Your task to perform on an android device: toggle priority inbox in the gmail app Image 0: 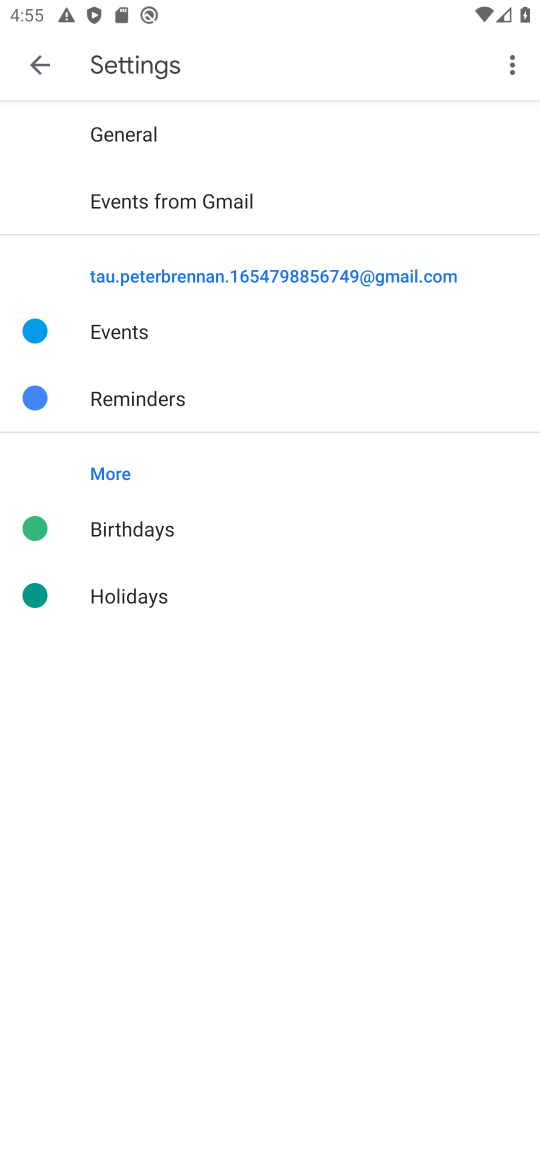
Step 0: press home button
Your task to perform on an android device: toggle priority inbox in the gmail app Image 1: 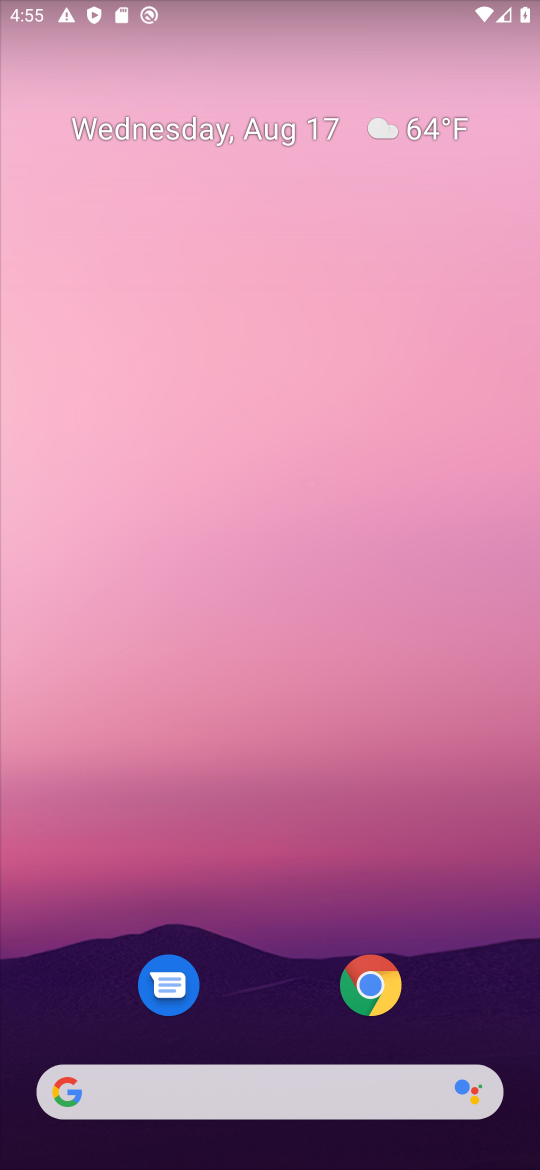
Step 1: drag from (243, 1114) to (272, 251)
Your task to perform on an android device: toggle priority inbox in the gmail app Image 2: 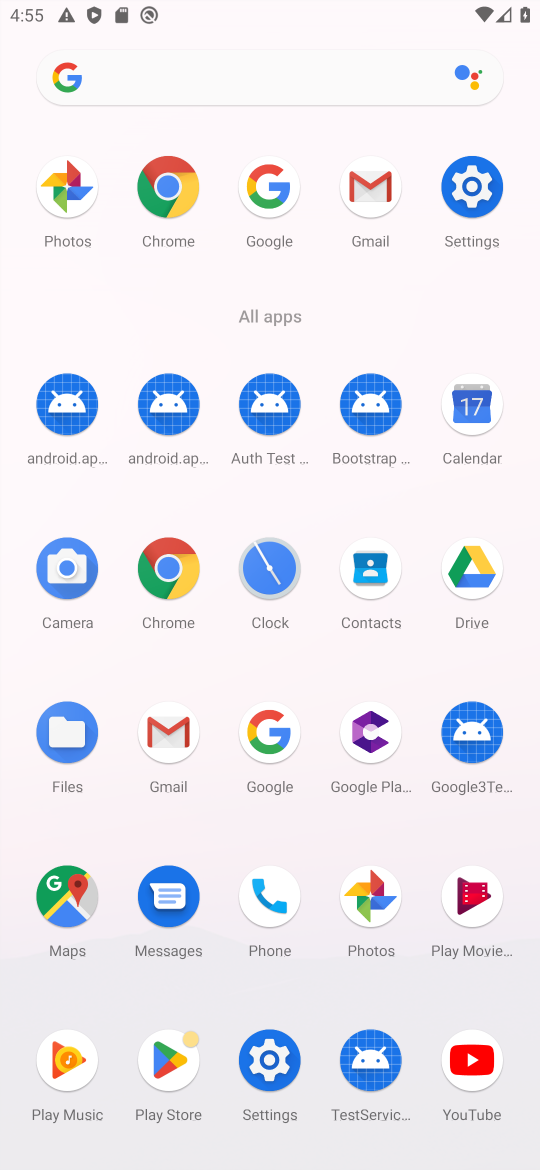
Step 2: click (363, 186)
Your task to perform on an android device: toggle priority inbox in the gmail app Image 3: 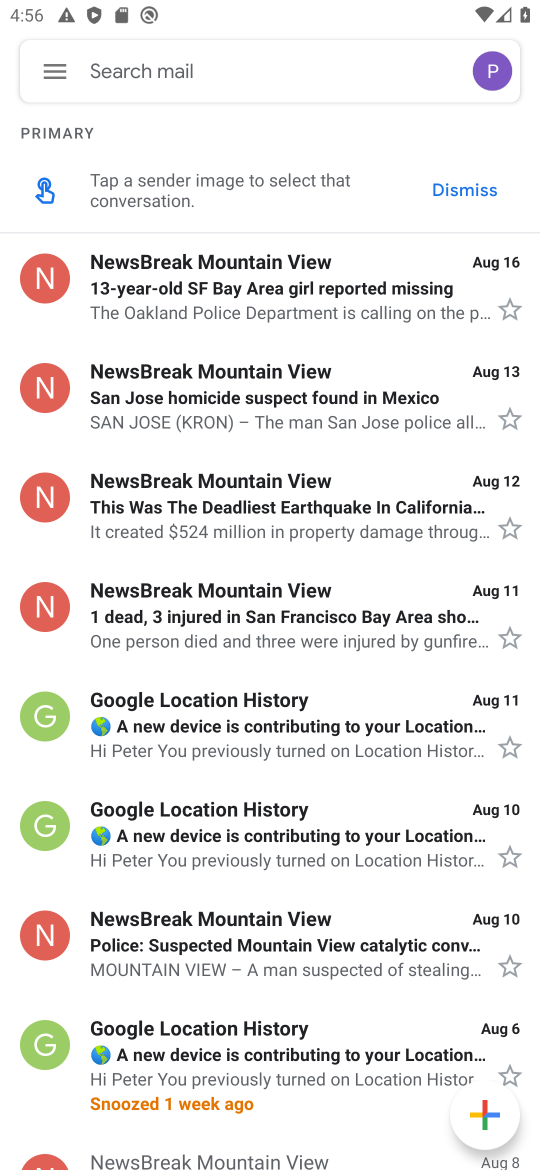
Step 3: click (54, 72)
Your task to perform on an android device: toggle priority inbox in the gmail app Image 4: 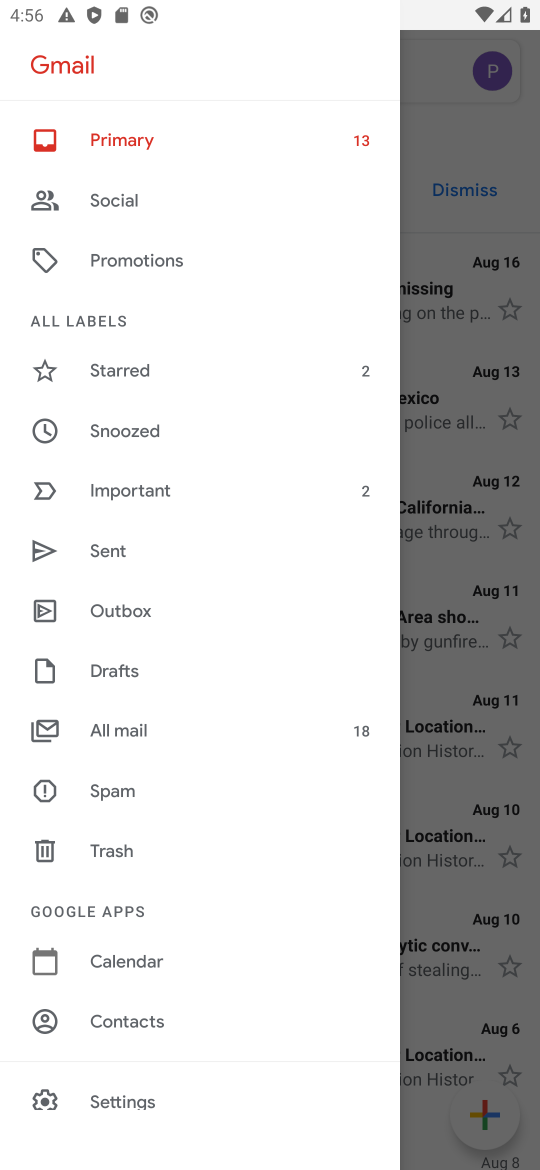
Step 4: click (123, 1093)
Your task to perform on an android device: toggle priority inbox in the gmail app Image 5: 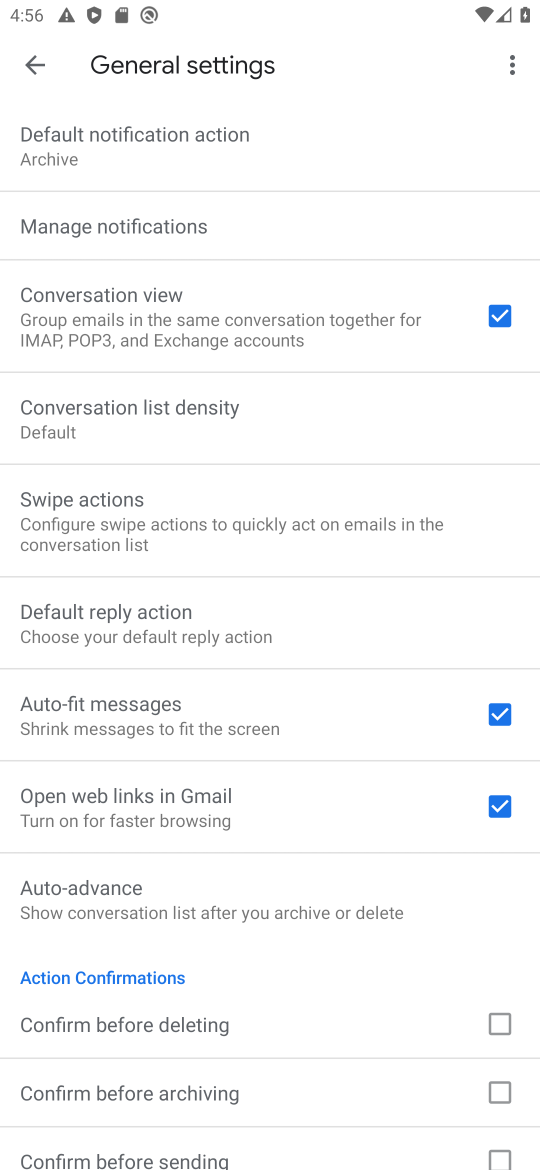
Step 5: press back button
Your task to perform on an android device: toggle priority inbox in the gmail app Image 6: 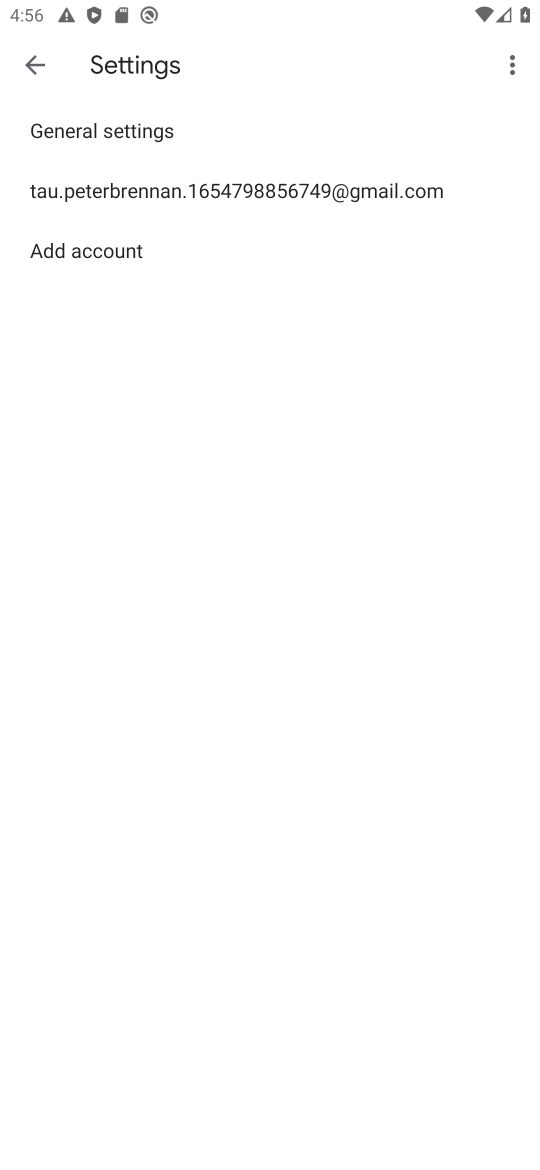
Step 6: click (145, 180)
Your task to perform on an android device: toggle priority inbox in the gmail app Image 7: 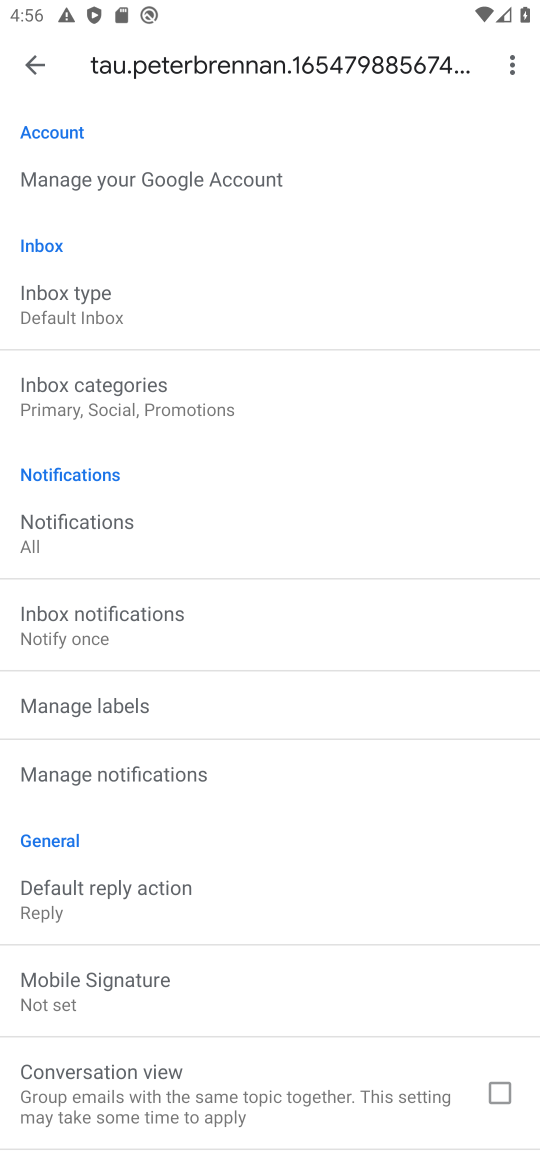
Step 7: click (78, 287)
Your task to perform on an android device: toggle priority inbox in the gmail app Image 8: 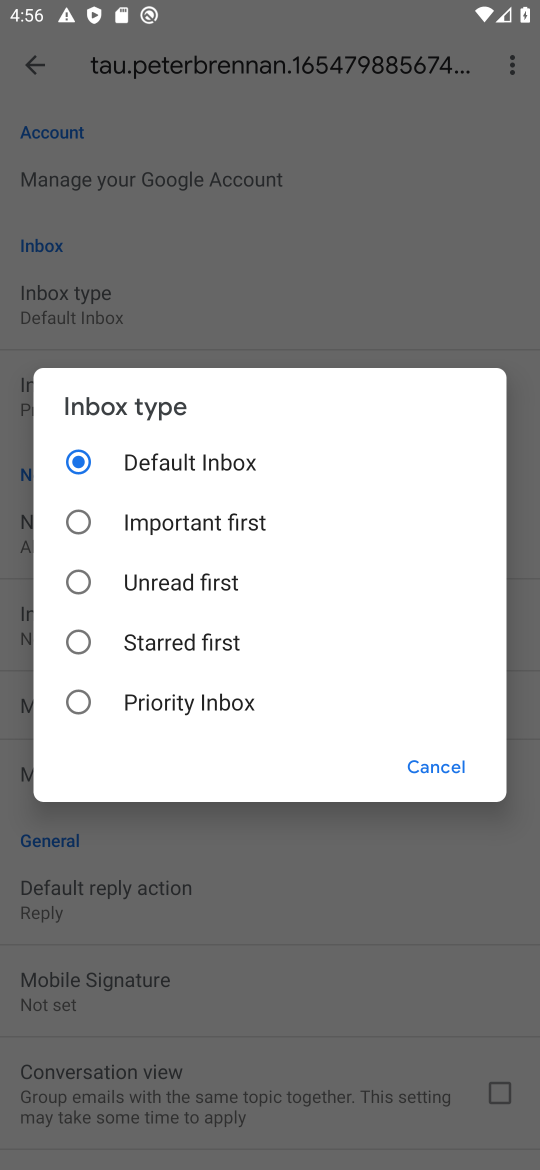
Step 8: click (81, 699)
Your task to perform on an android device: toggle priority inbox in the gmail app Image 9: 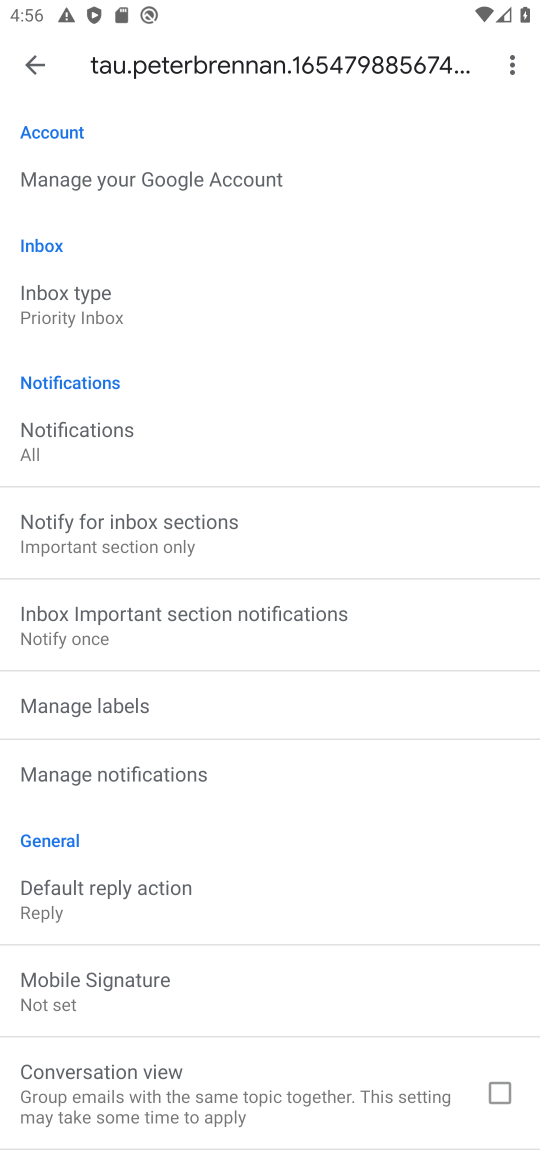
Step 9: task complete